Your task to perform on an android device: open app "ZOOM Cloud Meetings" Image 0: 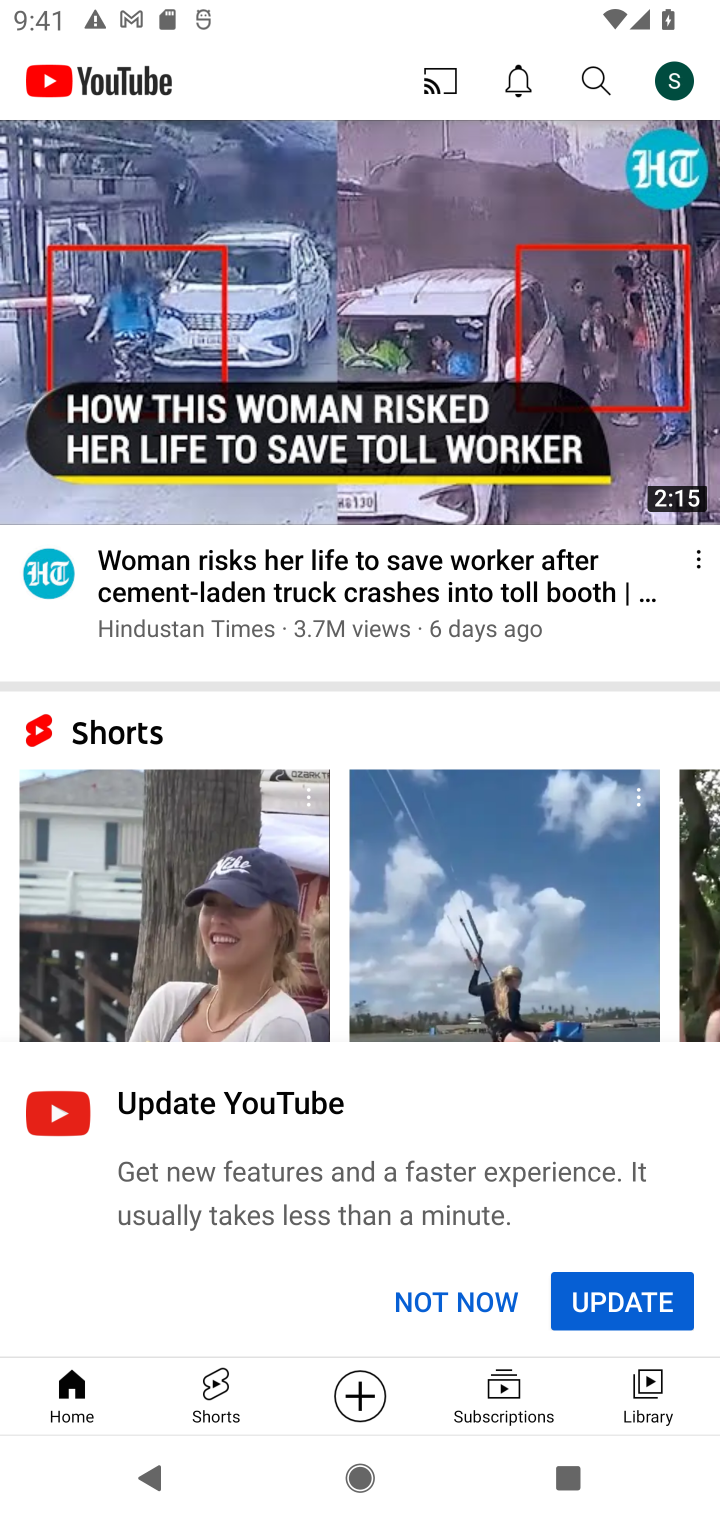
Step 0: press home button
Your task to perform on an android device: open app "ZOOM Cloud Meetings" Image 1: 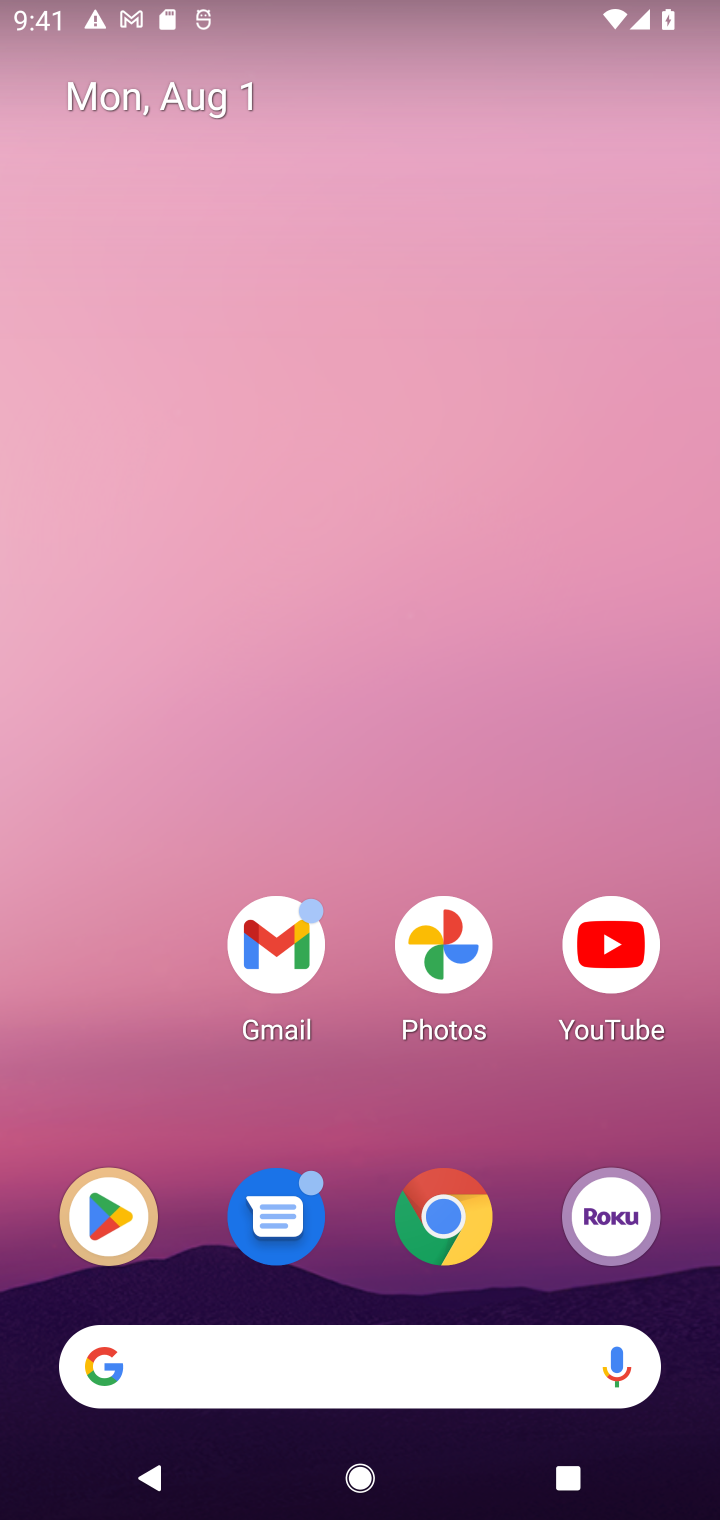
Step 1: click (119, 1234)
Your task to perform on an android device: open app "ZOOM Cloud Meetings" Image 2: 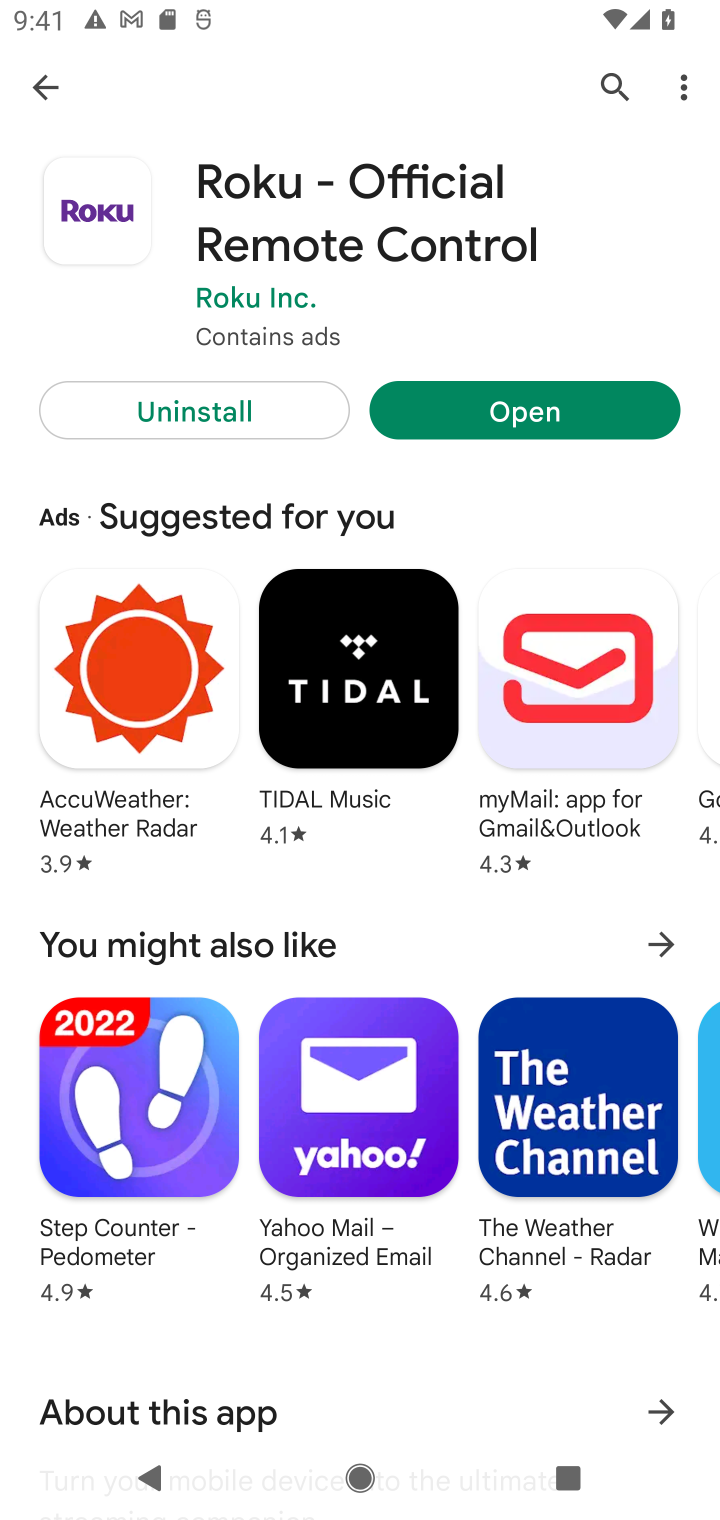
Step 2: click (610, 94)
Your task to perform on an android device: open app "ZOOM Cloud Meetings" Image 3: 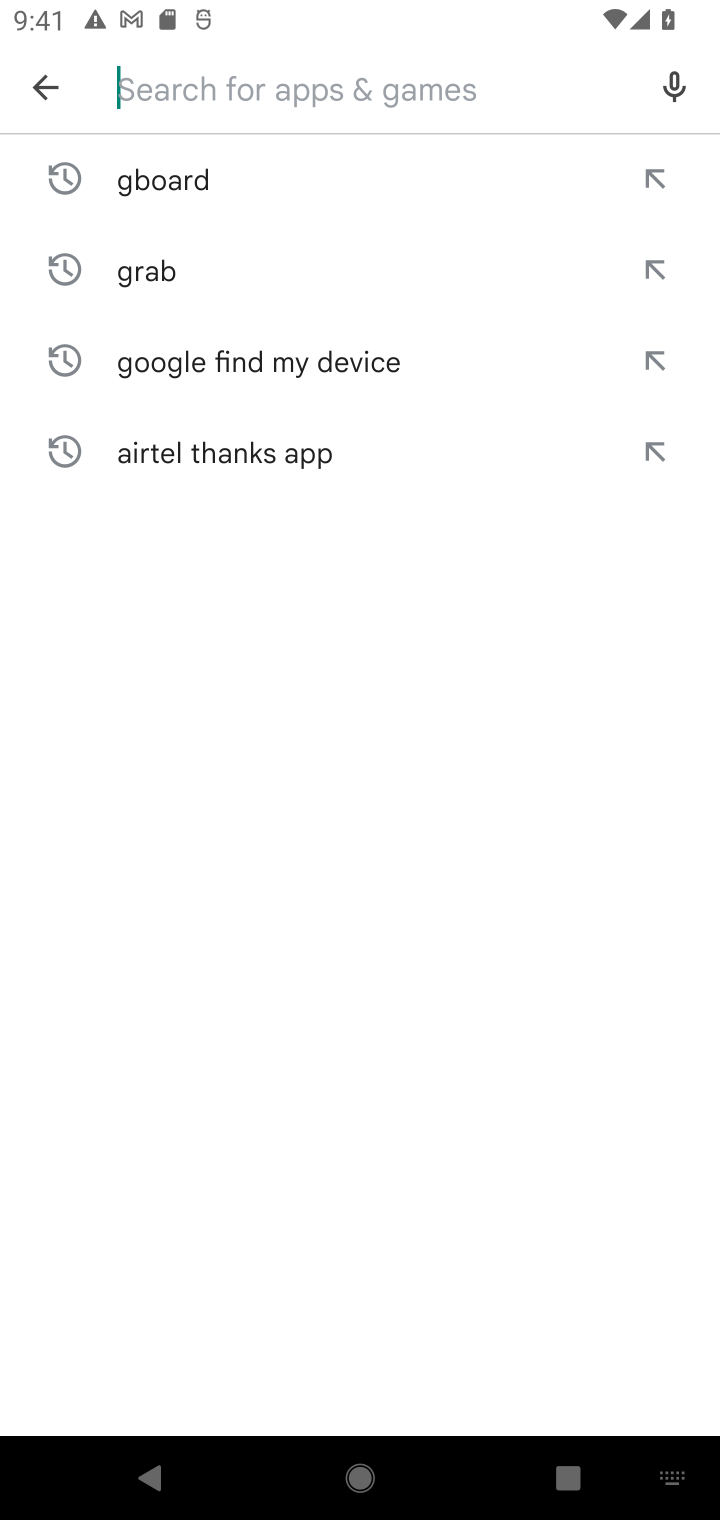
Step 3: type "ZOOM Cloud Meetings"
Your task to perform on an android device: open app "ZOOM Cloud Meetings" Image 4: 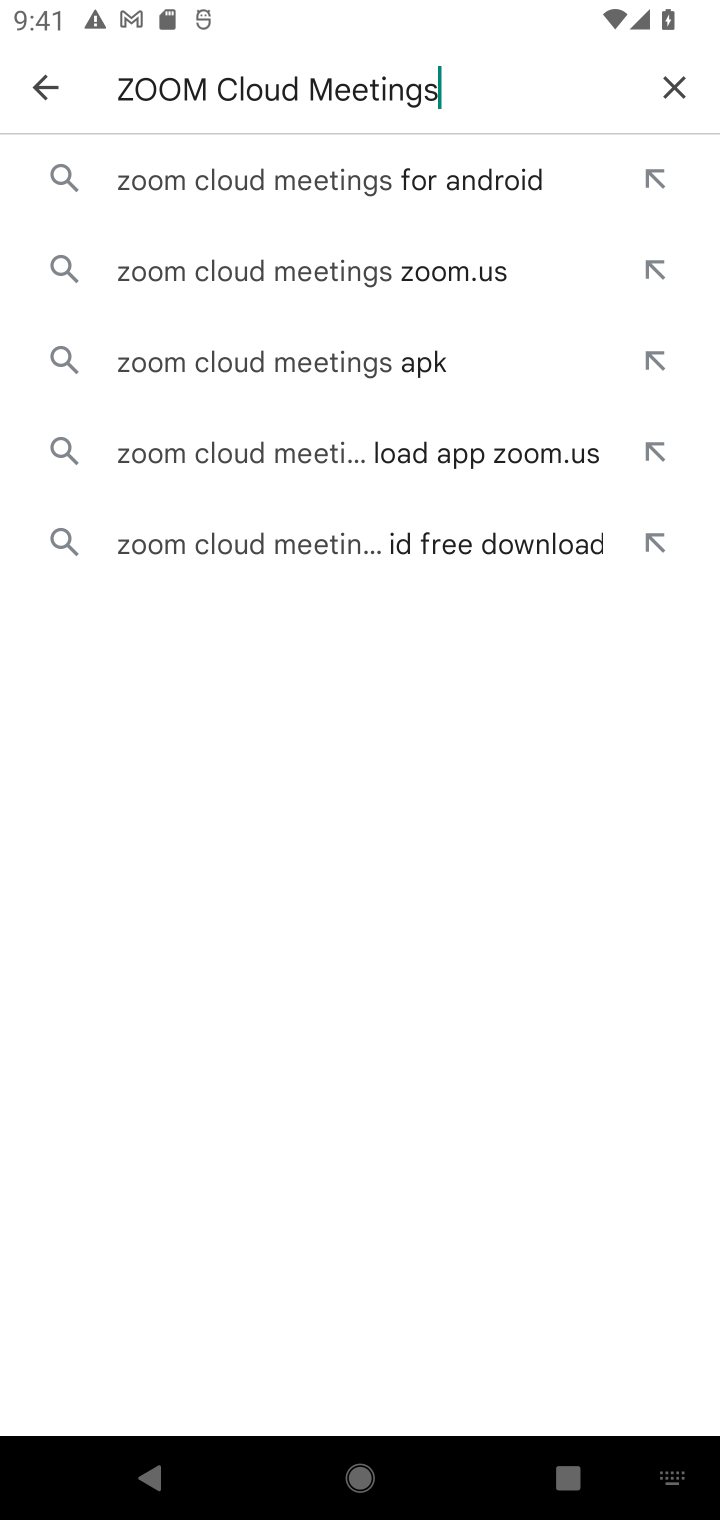
Step 4: click (272, 201)
Your task to perform on an android device: open app "ZOOM Cloud Meetings" Image 5: 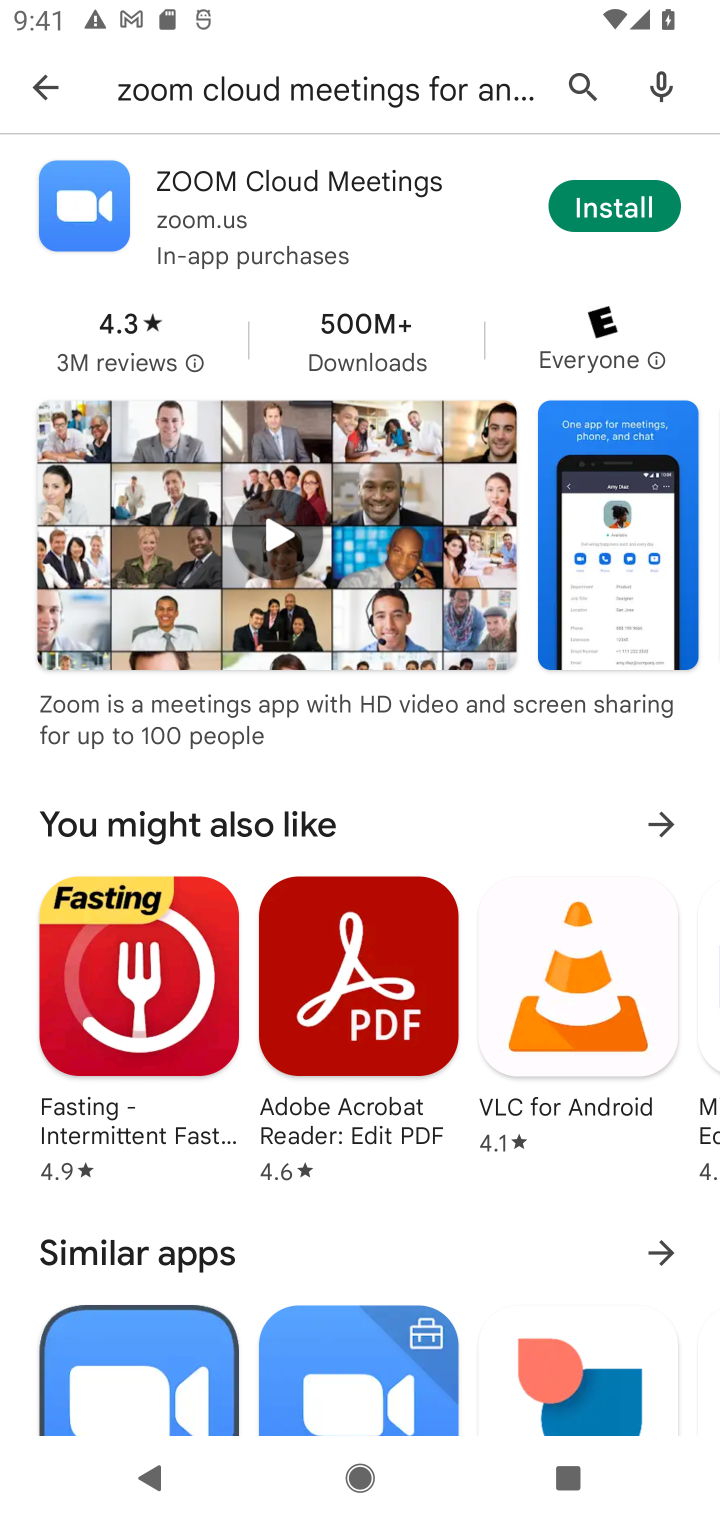
Step 5: task complete